Your task to perform on an android device: Go to sound settings Image 0: 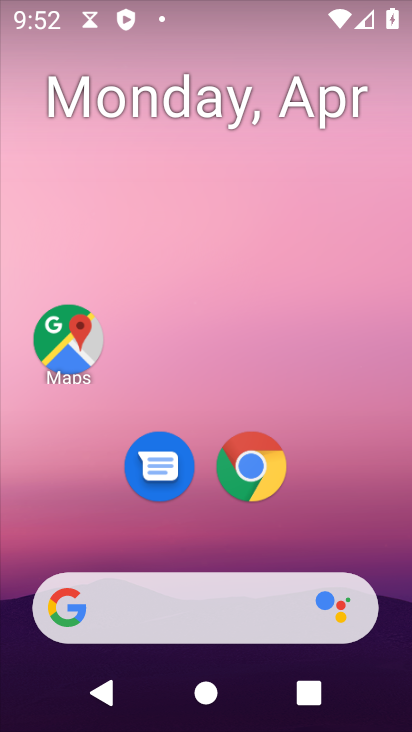
Step 0: drag from (245, 459) to (204, 146)
Your task to perform on an android device: Go to sound settings Image 1: 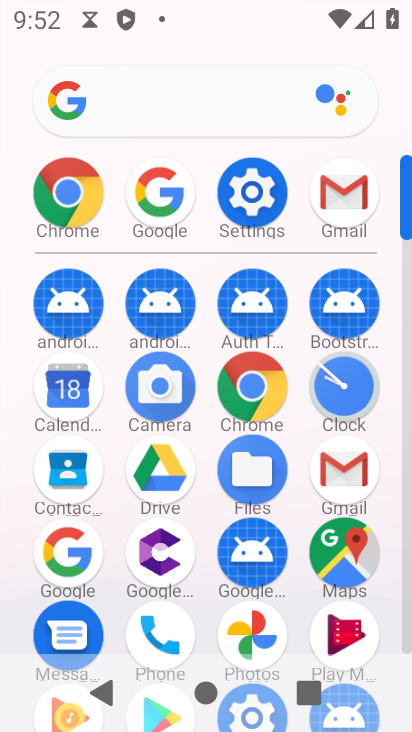
Step 1: click (258, 230)
Your task to perform on an android device: Go to sound settings Image 2: 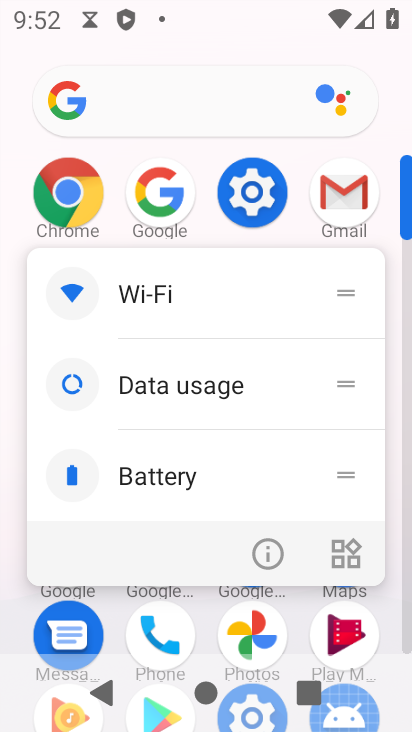
Step 2: click (258, 230)
Your task to perform on an android device: Go to sound settings Image 3: 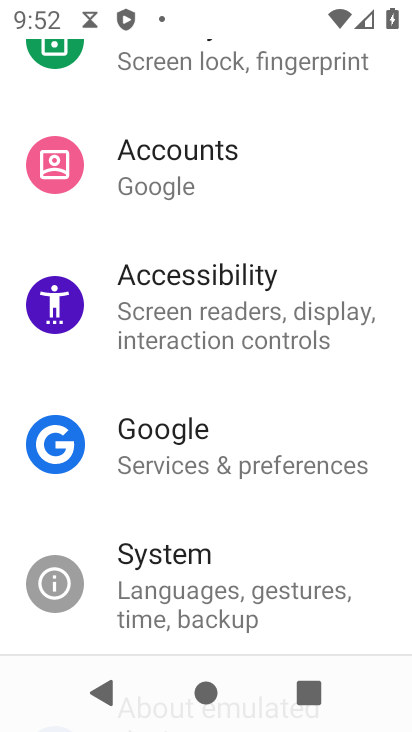
Step 3: drag from (226, 214) to (258, 385)
Your task to perform on an android device: Go to sound settings Image 4: 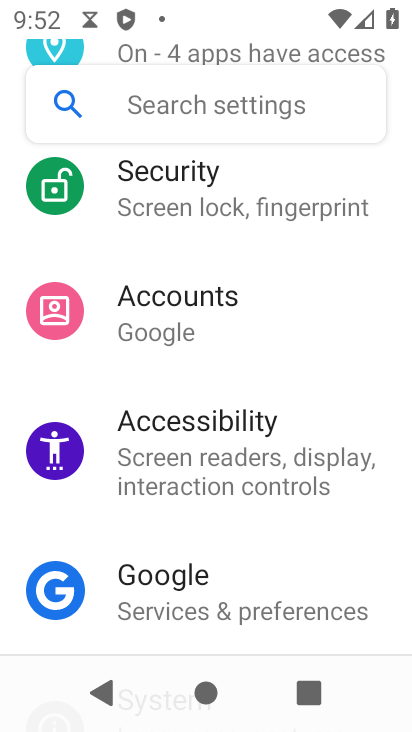
Step 4: drag from (294, 350) to (303, 478)
Your task to perform on an android device: Go to sound settings Image 5: 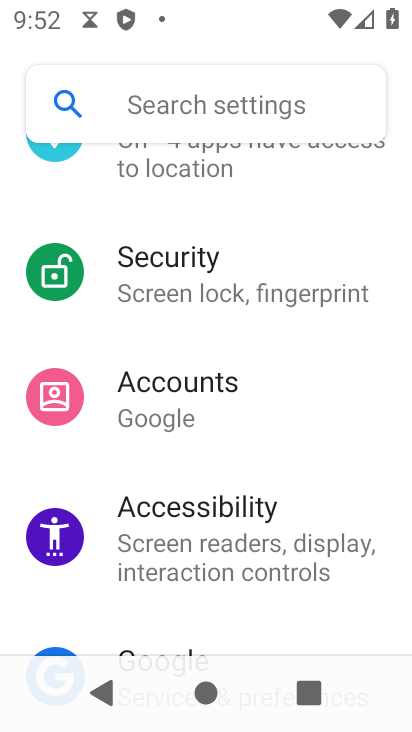
Step 5: drag from (277, 328) to (302, 488)
Your task to perform on an android device: Go to sound settings Image 6: 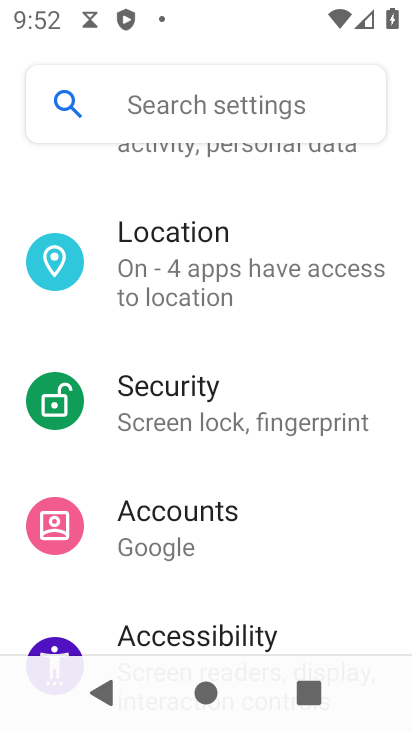
Step 6: drag from (258, 348) to (306, 491)
Your task to perform on an android device: Go to sound settings Image 7: 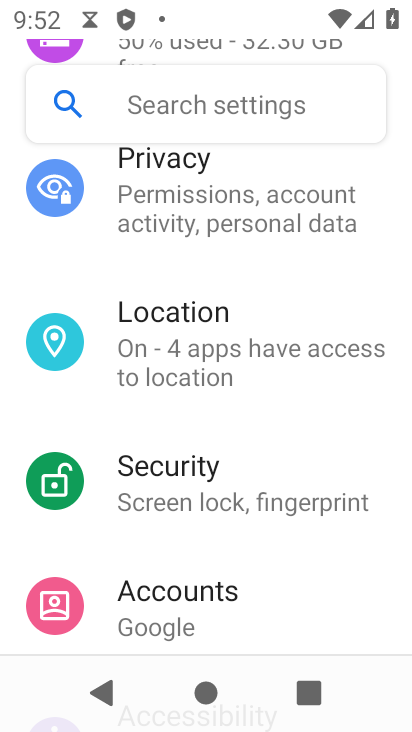
Step 7: drag from (275, 296) to (323, 456)
Your task to perform on an android device: Go to sound settings Image 8: 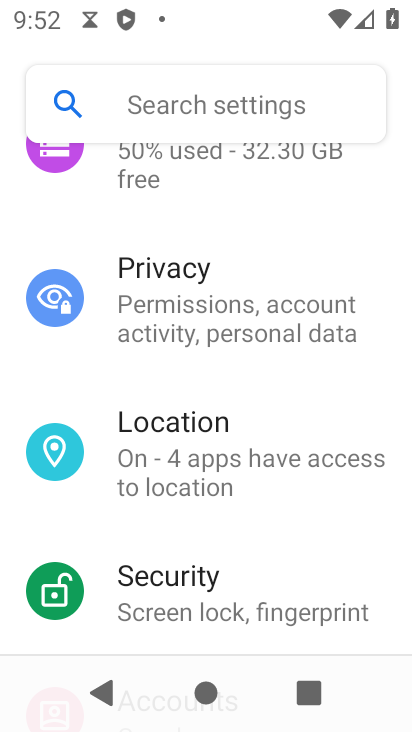
Step 8: drag from (258, 262) to (275, 446)
Your task to perform on an android device: Go to sound settings Image 9: 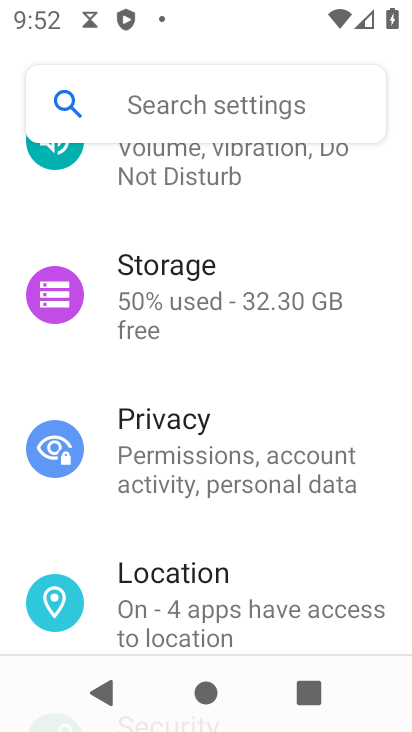
Step 9: drag from (266, 263) to (296, 399)
Your task to perform on an android device: Go to sound settings Image 10: 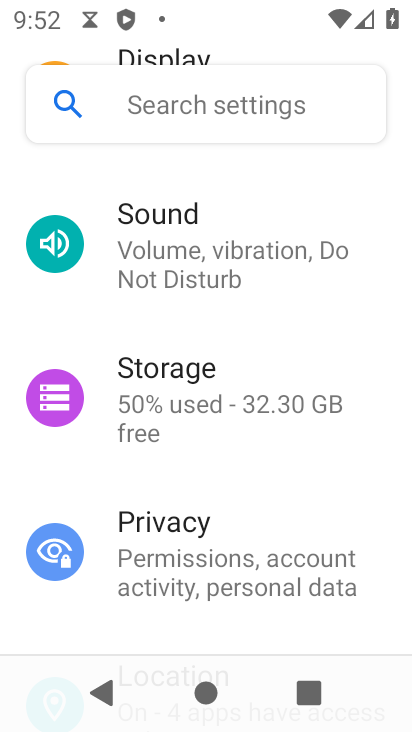
Step 10: drag from (270, 311) to (292, 407)
Your task to perform on an android device: Go to sound settings Image 11: 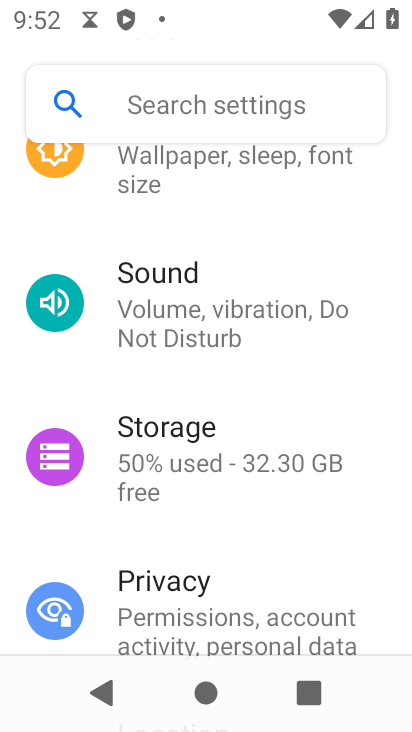
Step 11: click (160, 271)
Your task to perform on an android device: Go to sound settings Image 12: 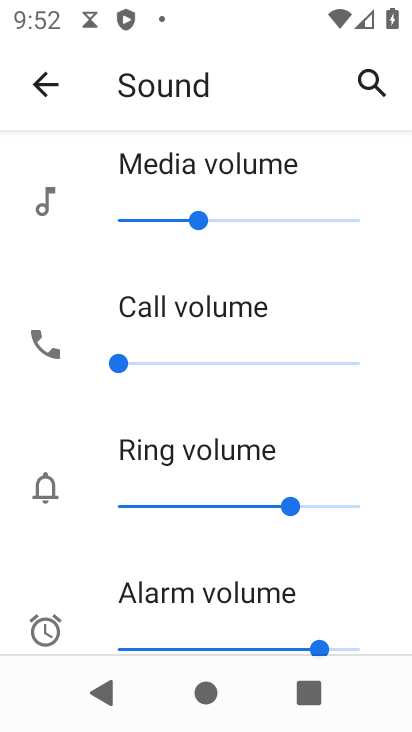
Step 12: task complete